Your task to perform on an android device: Go to CNN.com Image 0: 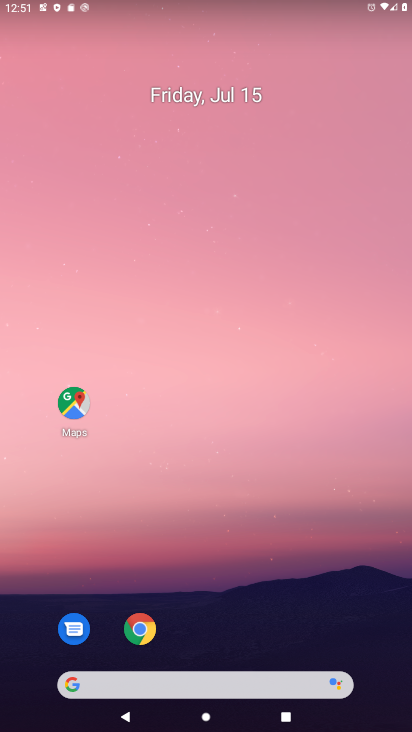
Step 0: press home button
Your task to perform on an android device: Go to CNN.com Image 1: 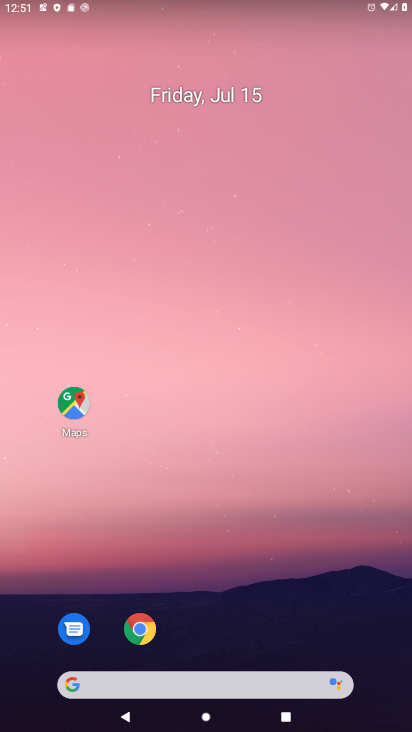
Step 1: click (66, 685)
Your task to perform on an android device: Go to CNN.com Image 2: 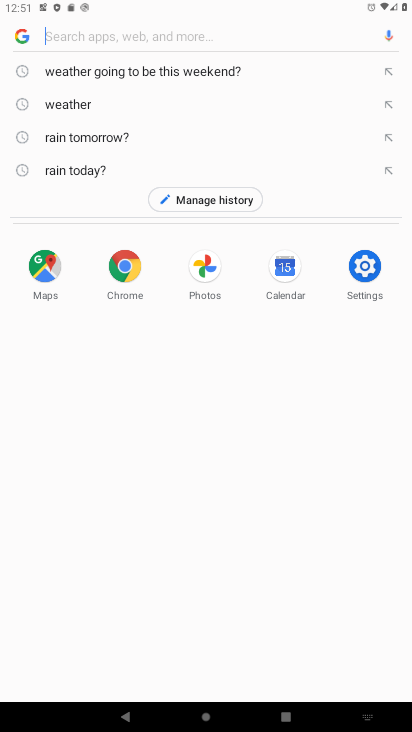
Step 2: type "CNN.com"
Your task to perform on an android device: Go to CNN.com Image 3: 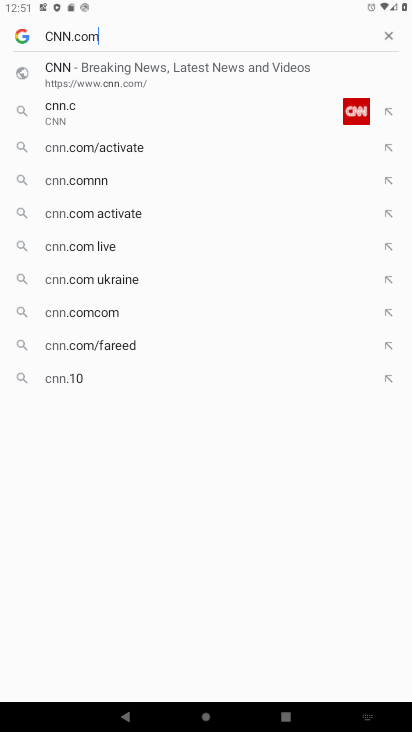
Step 3: press enter
Your task to perform on an android device: Go to CNN.com Image 4: 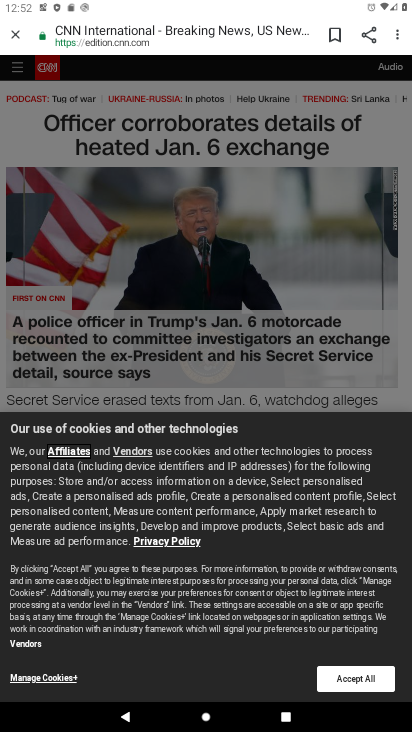
Step 4: task complete